Your task to perform on an android device: Open the stopwatch Image 0: 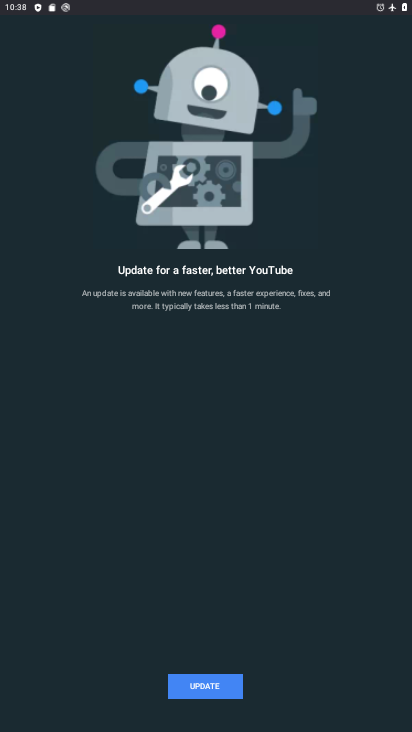
Step 0: press back button
Your task to perform on an android device: Open the stopwatch Image 1: 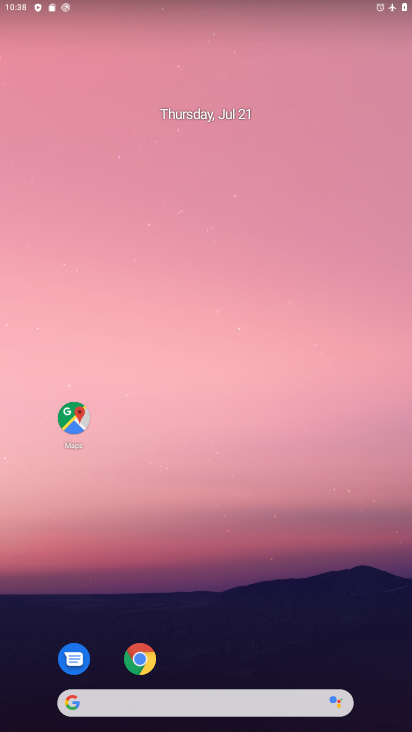
Step 1: drag from (325, 622) to (308, 261)
Your task to perform on an android device: Open the stopwatch Image 2: 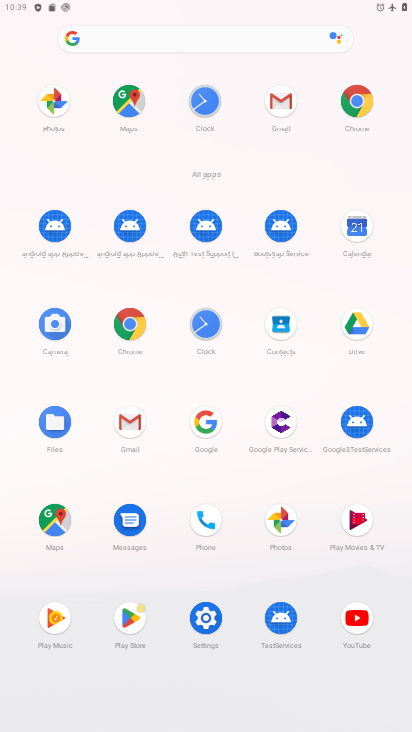
Step 2: click (193, 335)
Your task to perform on an android device: Open the stopwatch Image 3: 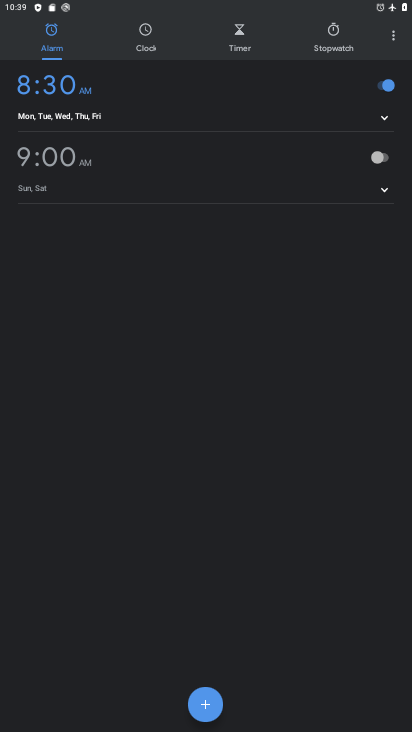
Step 3: click (340, 39)
Your task to perform on an android device: Open the stopwatch Image 4: 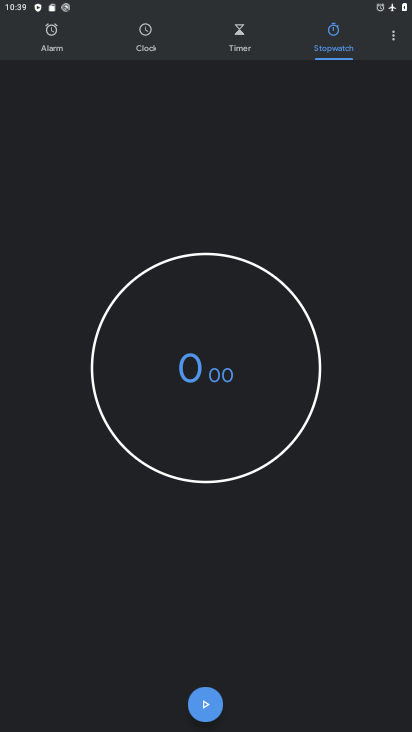
Step 4: task complete